Your task to perform on an android device: Open notification settings Image 0: 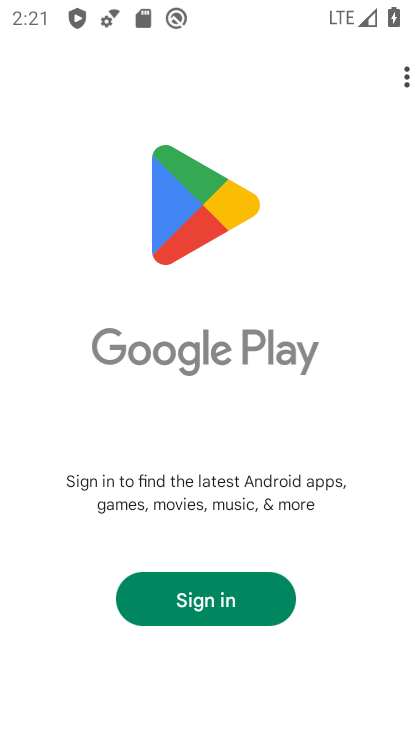
Step 0: press home button
Your task to perform on an android device: Open notification settings Image 1: 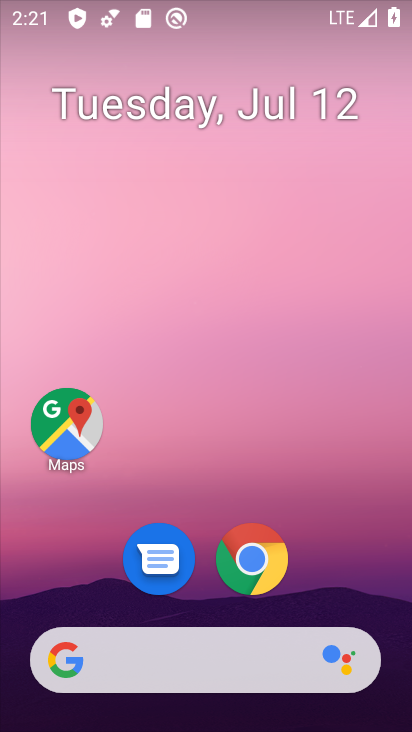
Step 1: drag from (365, 579) to (360, 272)
Your task to perform on an android device: Open notification settings Image 2: 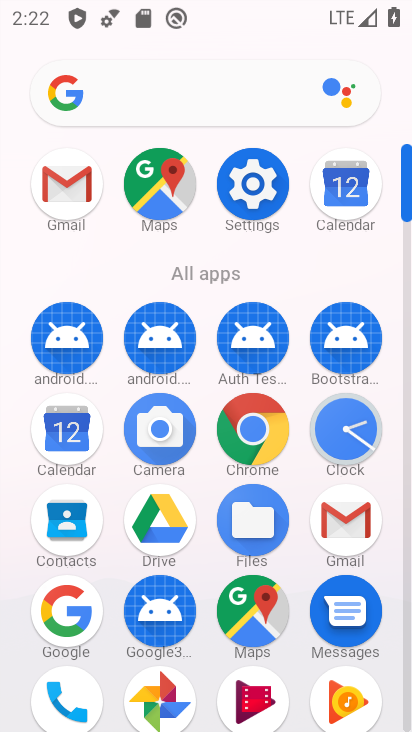
Step 2: click (258, 211)
Your task to perform on an android device: Open notification settings Image 3: 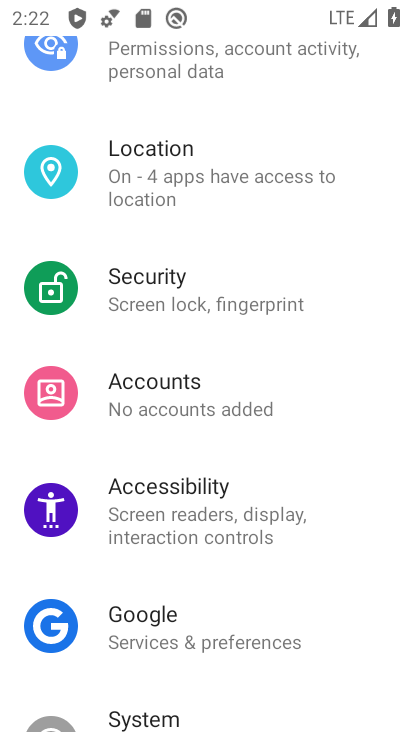
Step 3: drag from (346, 251) to (345, 369)
Your task to perform on an android device: Open notification settings Image 4: 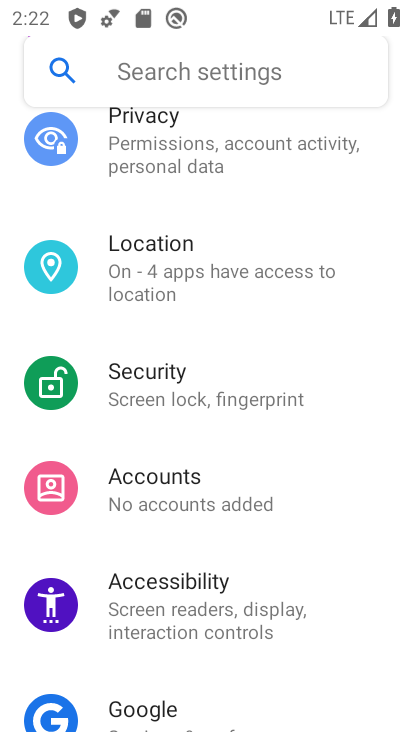
Step 4: drag from (342, 240) to (351, 386)
Your task to perform on an android device: Open notification settings Image 5: 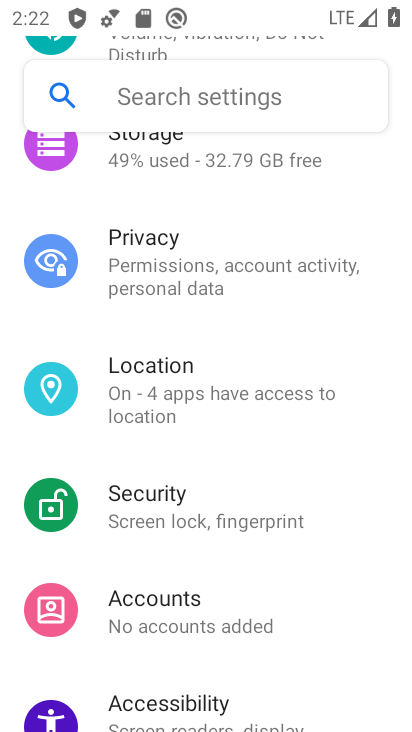
Step 5: drag from (358, 292) to (363, 457)
Your task to perform on an android device: Open notification settings Image 6: 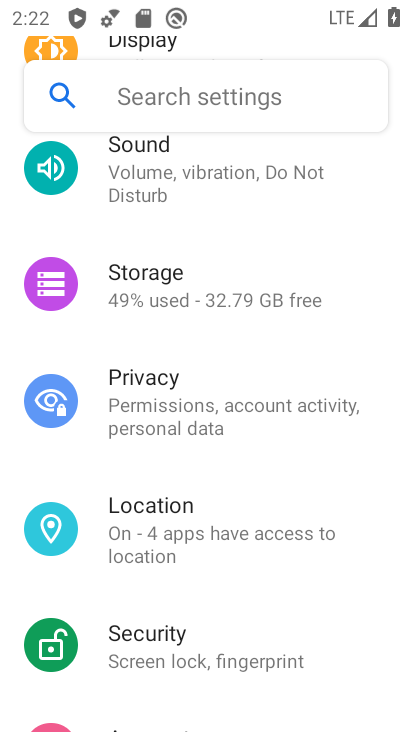
Step 6: drag from (348, 298) to (359, 393)
Your task to perform on an android device: Open notification settings Image 7: 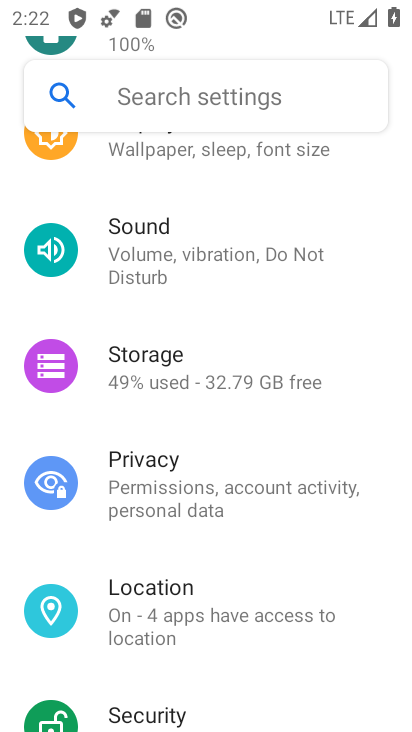
Step 7: drag from (360, 278) to (377, 403)
Your task to perform on an android device: Open notification settings Image 8: 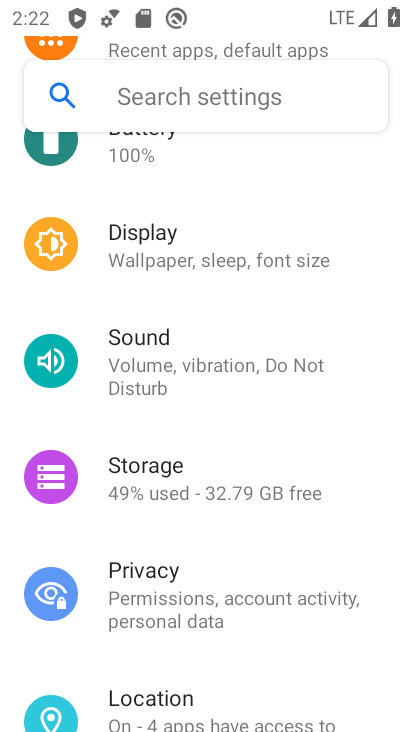
Step 8: drag from (361, 241) to (363, 343)
Your task to perform on an android device: Open notification settings Image 9: 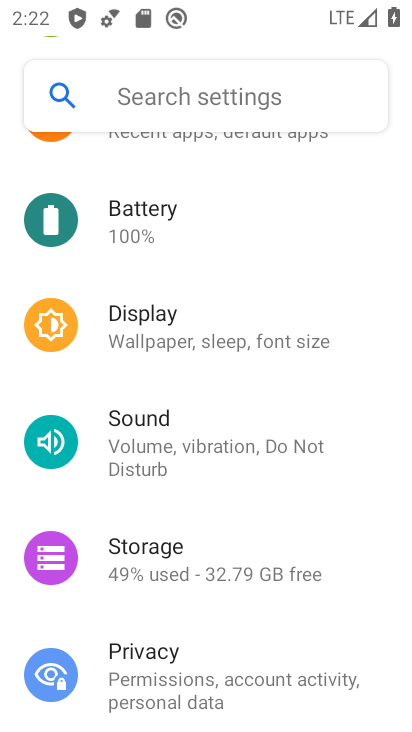
Step 9: drag from (360, 274) to (367, 365)
Your task to perform on an android device: Open notification settings Image 10: 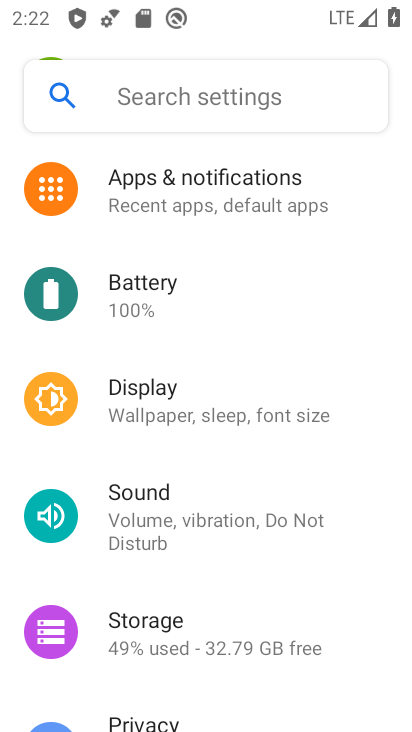
Step 10: drag from (363, 306) to (367, 390)
Your task to perform on an android device: Open notification settings Image 11: 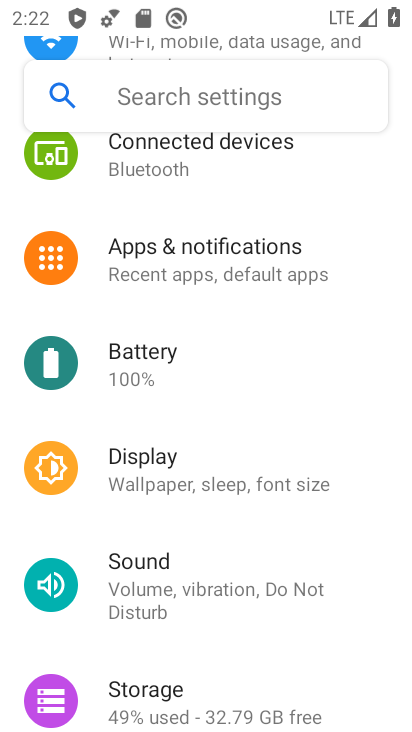
Step 11: drag from (367, 305) to (372, 418)
Your task to perform on an android device: Open notification settings Image 12: 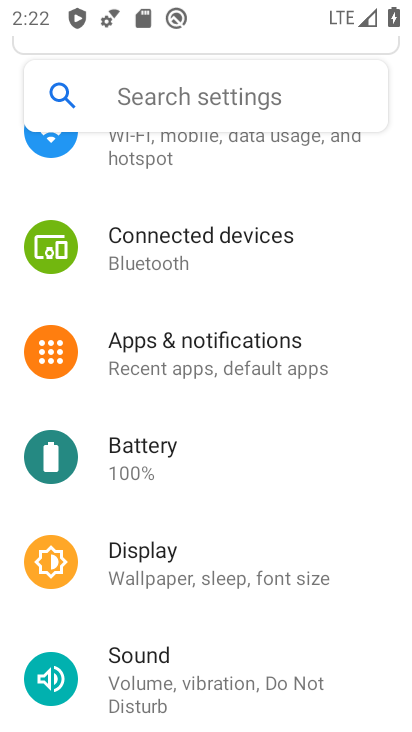
Step 12: click (311, 367)
Your task to perform on an android device: Open notification settings Image 13: 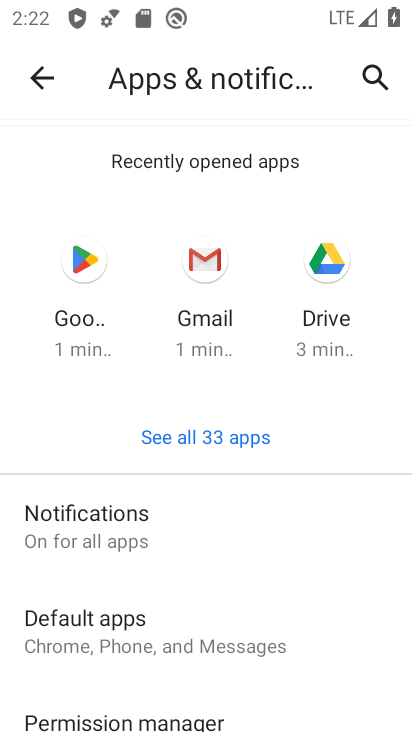
Step 13: click (195, 524)
Your task to perform on an android device: Open notification settings Image 14: 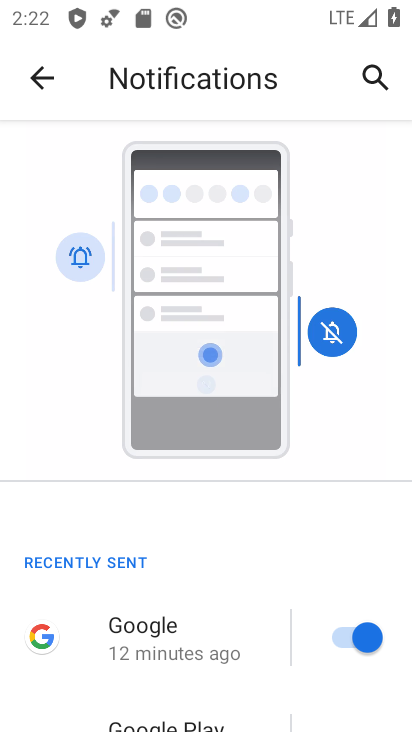
Step 14: task complete